Your task to perform on an android device: find which apps use the phone's location Image 0: 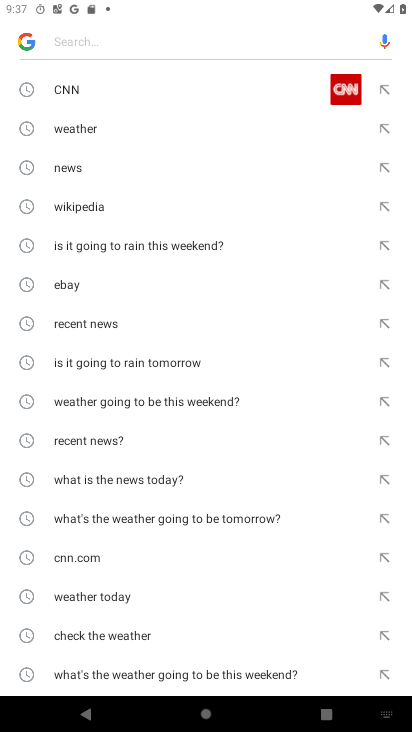
Step 0: press home button
Your task to perform on an android device: find which apps use the phone's location Image 1: 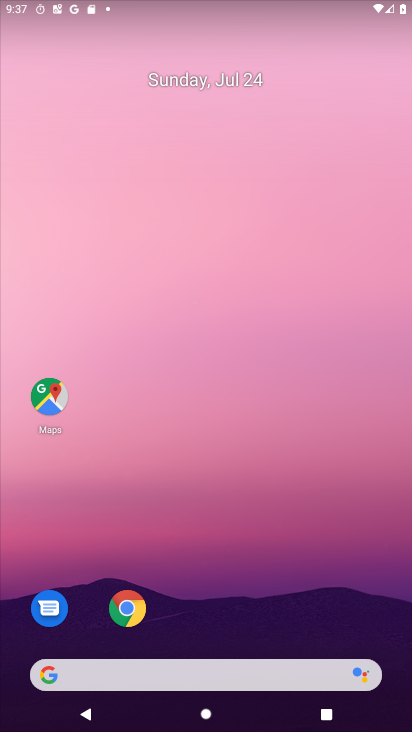
Step 1: drag from (180, 632) to (204, 4)
Your task to perform on an android device: find which apps use the phone's location Image 2: 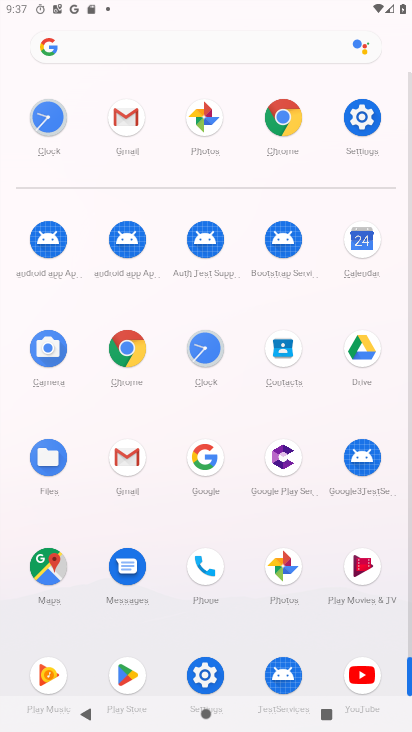
Step 2: click (362, 131)
Your task to perform on an android device: find which apps use the phone's location Image 3: 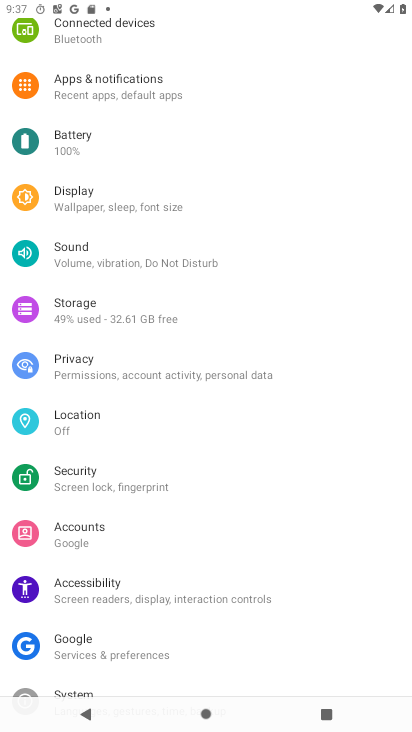
Step 3: click (97, 424)
Your task to perform on an android device: find which apps use the phone's location Image 4: 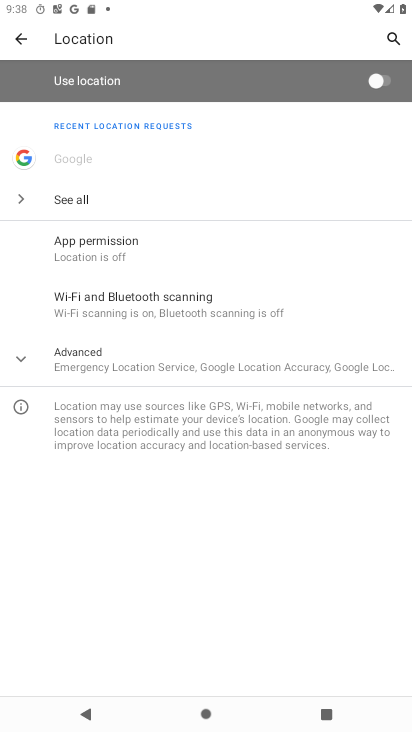
Step 4: click (70, 190)
Your task to perform on an android device: find which apps use the phone's location Image 5: 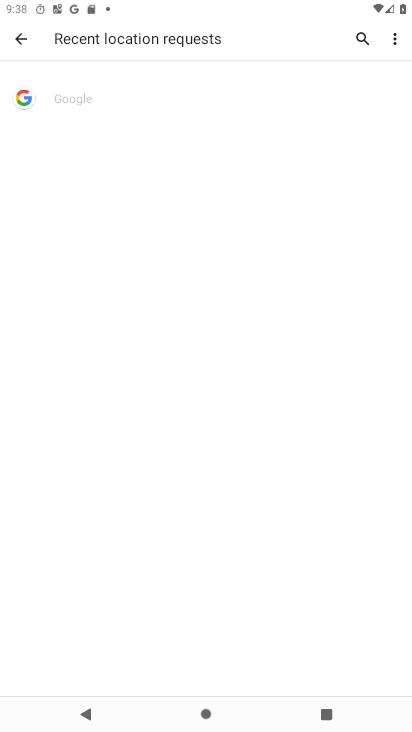
Step 5: task complete